Your task to perform on an android device: change the clock display to digital Image 0: 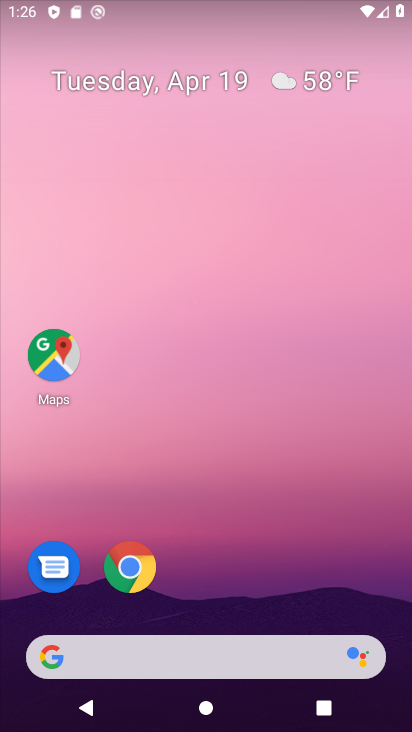
Step 0: drag from (378, 543) to (333, 128)
Your task to perform on an android device: change the clock display to digital Image 1: 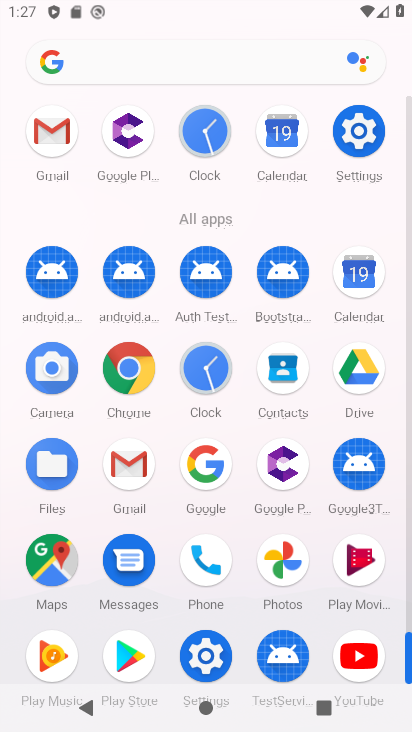
Step 1: click (200, 653)
Your task to perform on an android device: change the clock display to digital Image 2: 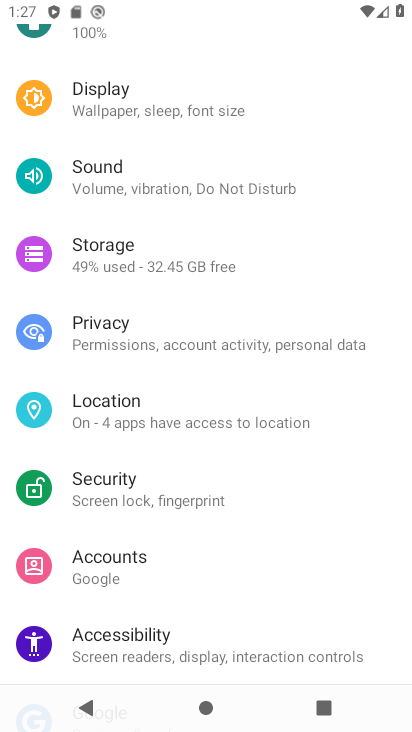
Step 2: press back button
Your task to perform on an android device: change the clock display to digital Image 3: 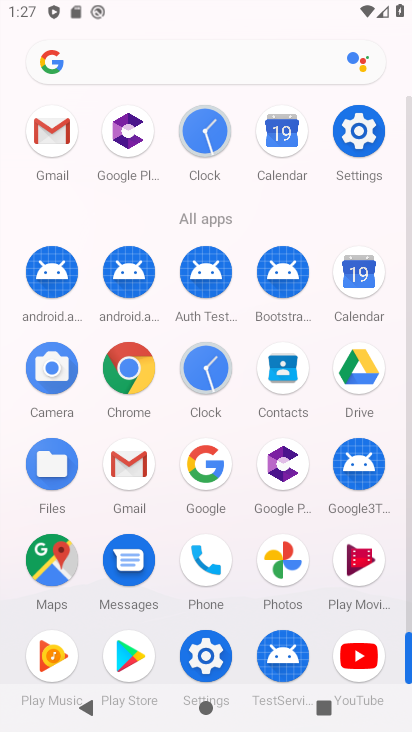
Step 3: click (206, 365)
Your task to perform on an android device: change the clock display to digital Image 4: 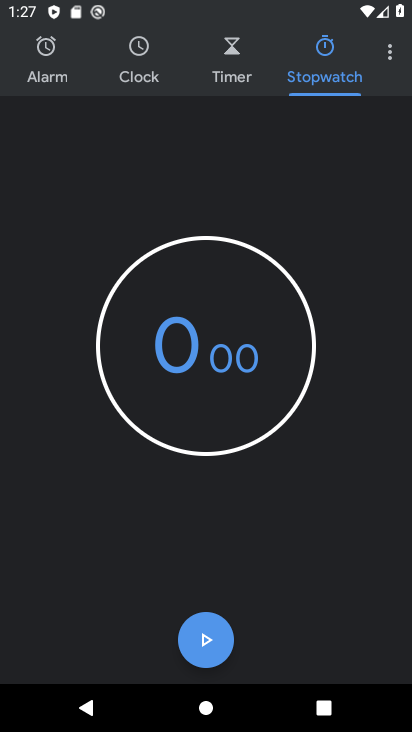
Step 4: click (388, 55)
Your task to perform on an android device: change the clock display to digital Image 5: 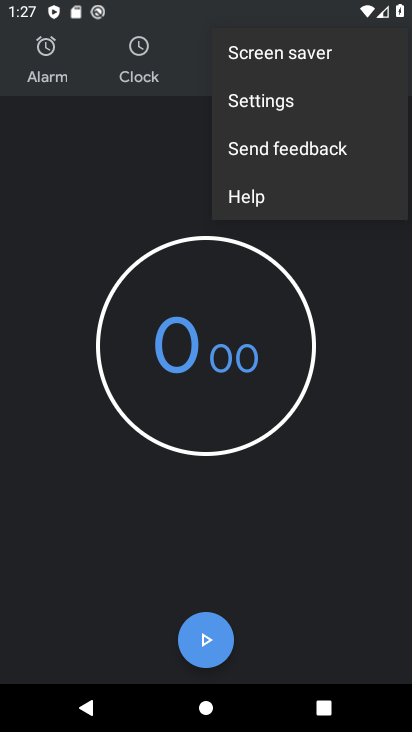
Step 5: click (248, 103)
Your task to perform on an android device: change the clock display to digital Image 6: 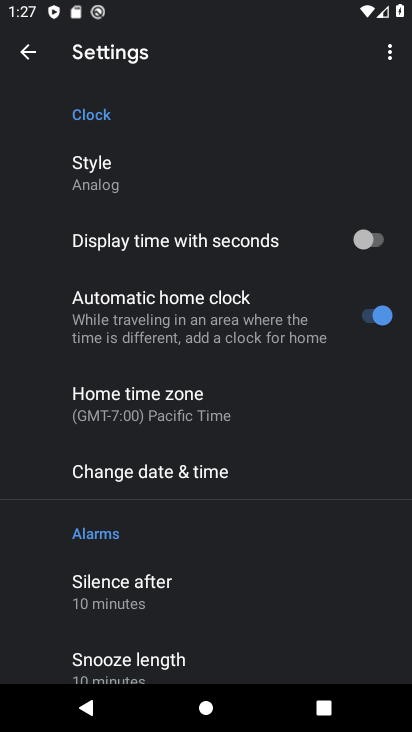
Step 6: click (109, 176)
Your task to perform on an android device: change the clock display to digital Image 7: 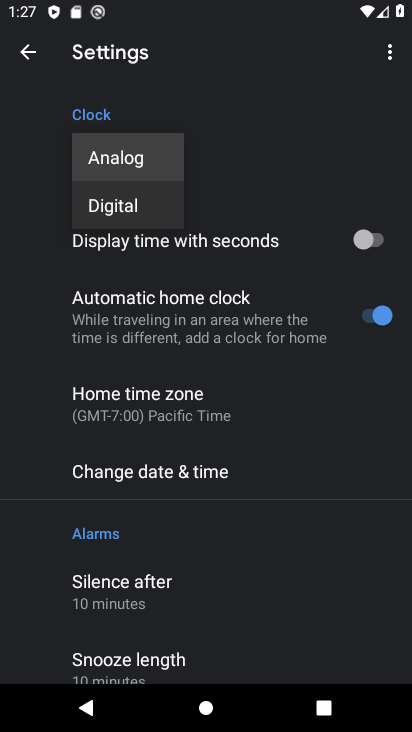
Step 7: click (112, 203)
Your task to perform on an android device: change the clock display to digital Image 8: 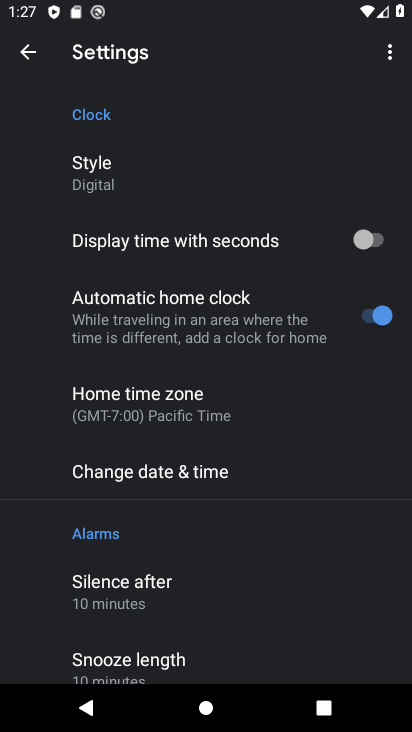
Step 8: task complete